Your task to perform on an android device: Open battery settings Image 0: 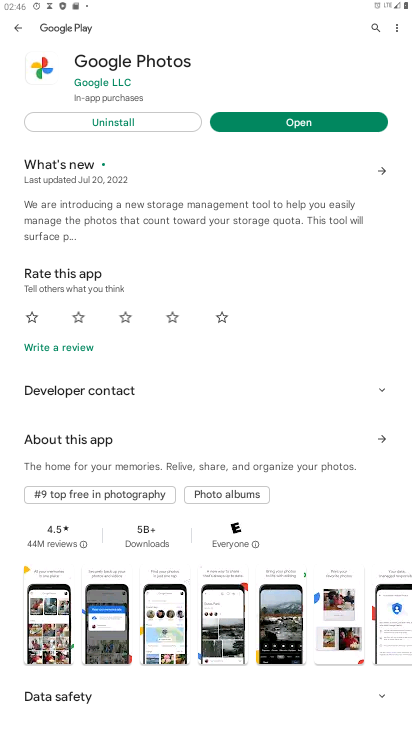
Step 0: press home button
Your task to perform on an android device: Open battery settings Image 1: 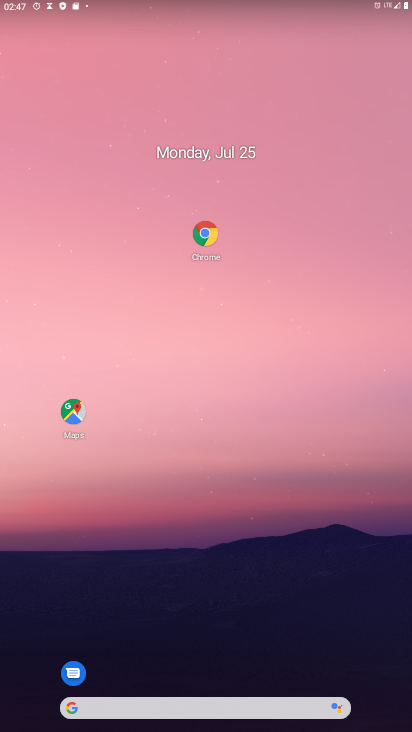
Step 1: drag from (197, 709) to (244, 2)
Your task to perform on an android device: Open battery settings Image 2: 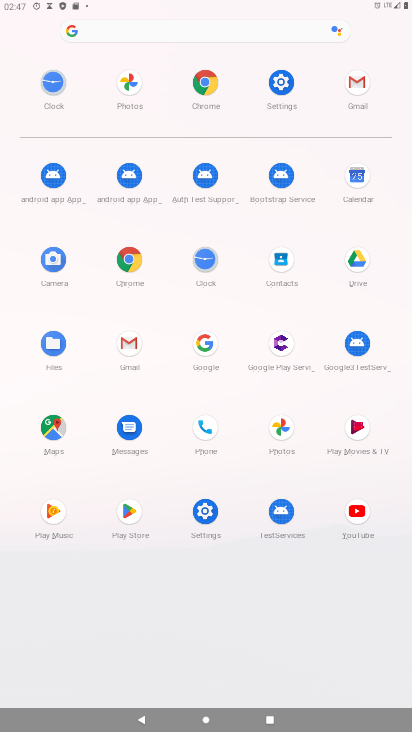
Step 2: click (280, 68)
Your task to perform on an android device: Open battery settings Image 3: 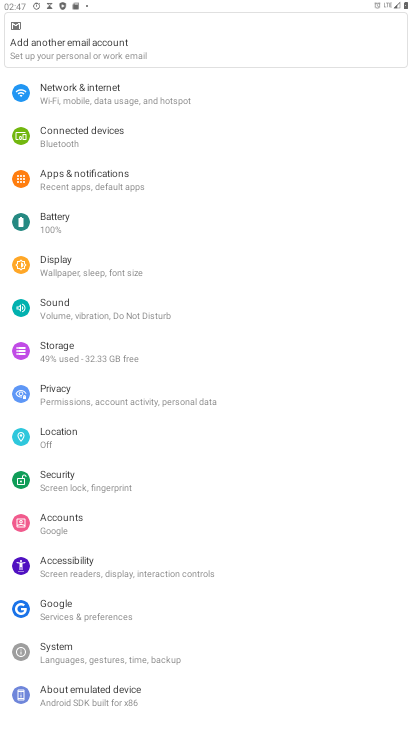
Step 3: click (67, 225)
Your task to perform on an android device: Open battery settings Image 4: 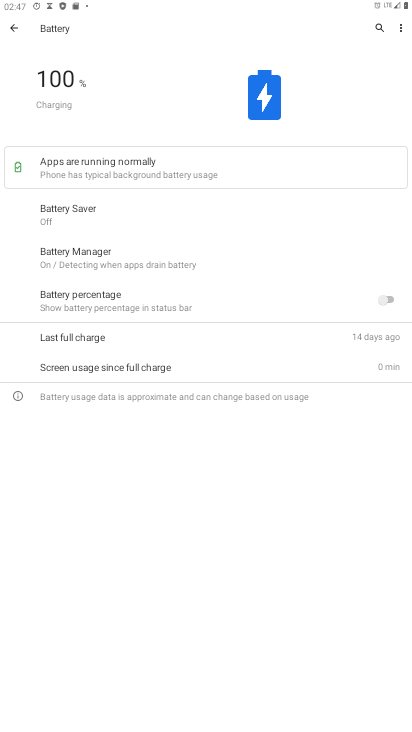
Step 4: task complete